Your task to perform on an android device: turn on showing notifications on the lock screen Image 0: 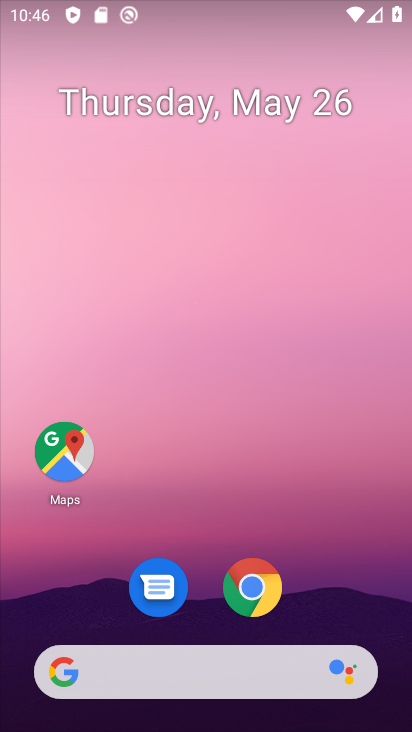
Step 0: drag from (336, 384) to (339, 15)
Your task to perform on an android device: turn on showing notifications on the lock screen Image 1: 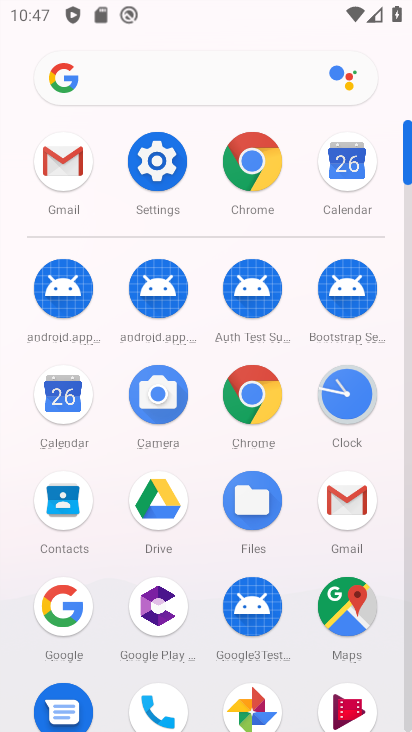
Step 1: click (154, 172)
Your task to perform on an android device: turn on showing notifications on the lock screen Image 2: 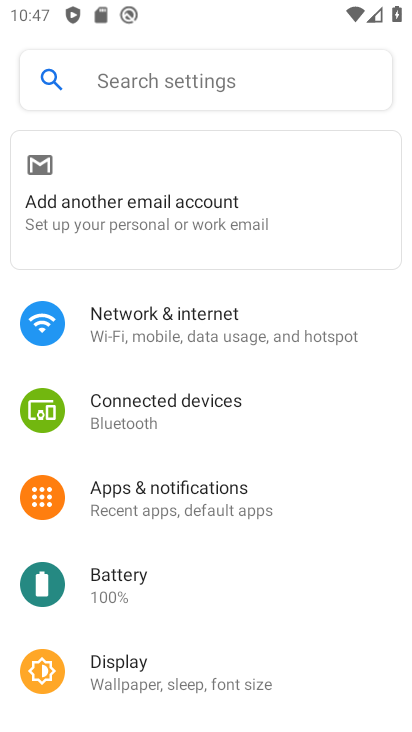
Step 2: click (166, 90)
Your task to perform on an android device: turn on showing notifications on the lock screen Image 3: 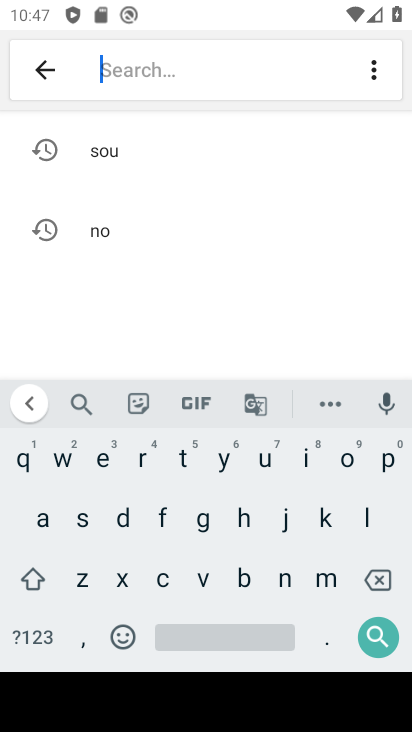
Step 3: click (134, 236)
Your task to perform on an android device: turn on showing notifications on the lock screen Image 4: 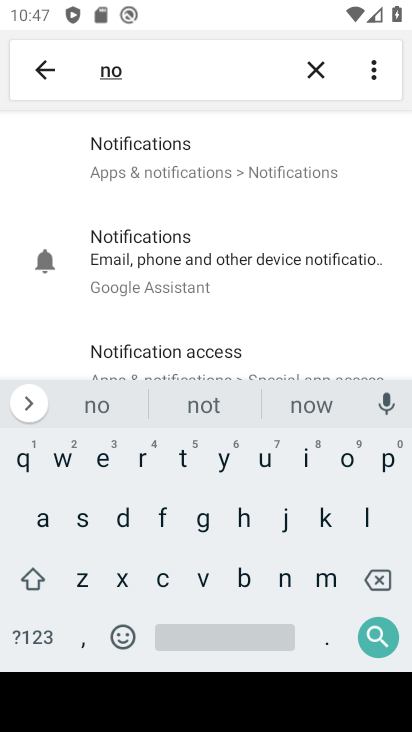
Step 4: click (205, 160)
Your task to perform on an android device: turn on showing notifications on the lock screen Image 5: 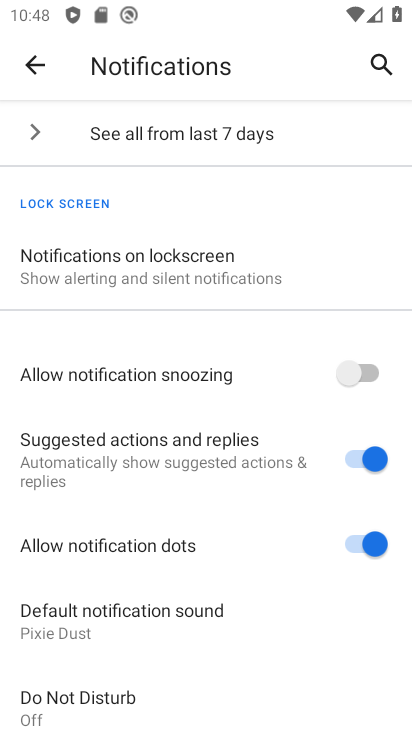
Step 5: click (136, 273)
Your task to perform on an android device: turn on showing notifications on the lock screen Image 6: 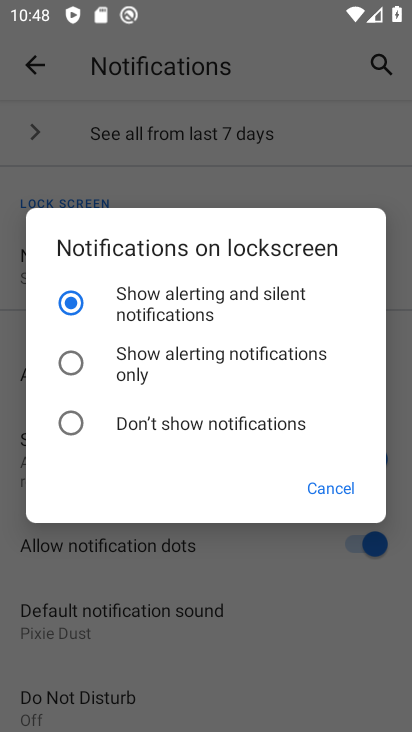
Step 6: task complete